Your task to perform on an android device: Do I have any events tomorrow? Image 0: 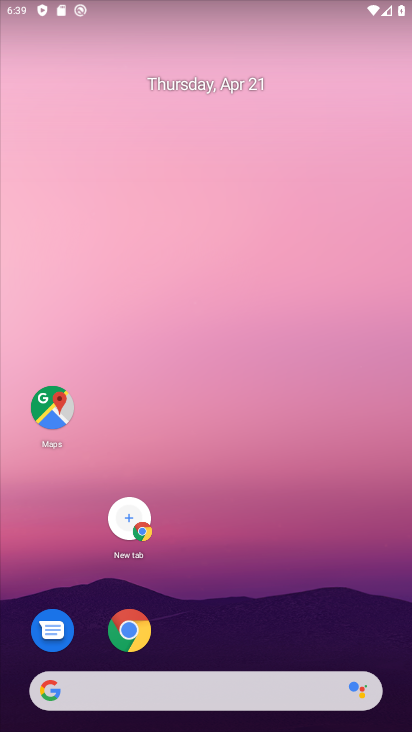
Step 0: drag from (319, 606) to (4, 4)
Your task to perform on an android device: Do I have any events tomorrow? Image 1: 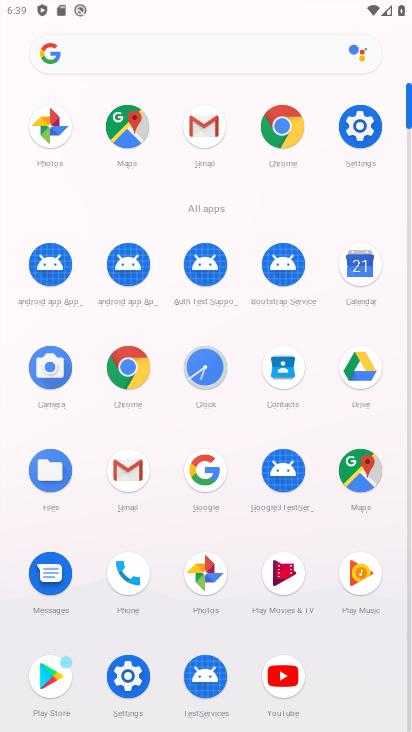
Step 1: click (364, 287)
Your task to perform on an android device: Do I have any events tomorrow? Image 2: 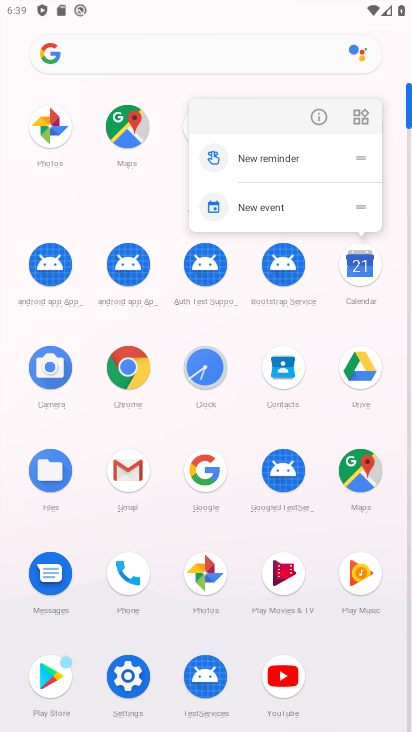
Step 2: click (357, 262)
Your task to perform on an android device: Do I have any events tomorrow? Image 3: 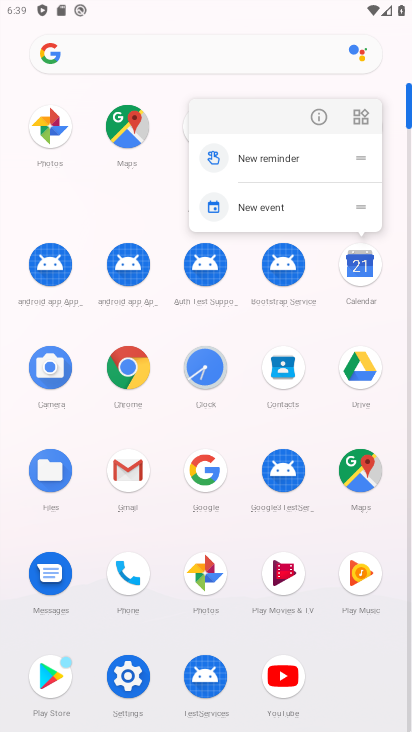
Step 3: click (370, 269)
Your task to perform on an android device: Do I have any events tomorrow? Image 4: 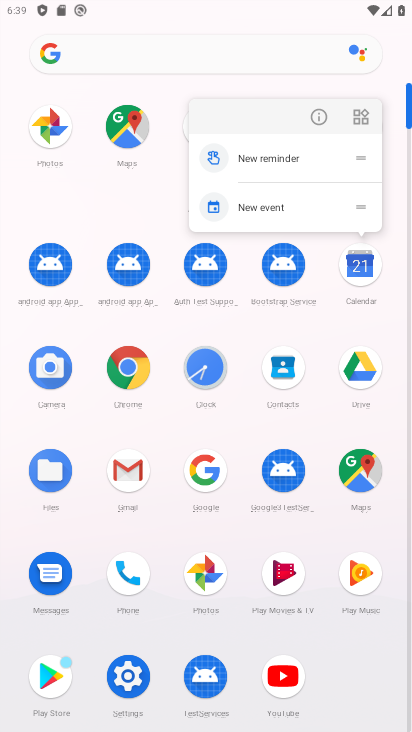
Step 4: click (348, 252)
Your task to perform on an android device: Do I have any events tomorrow? Image 5: 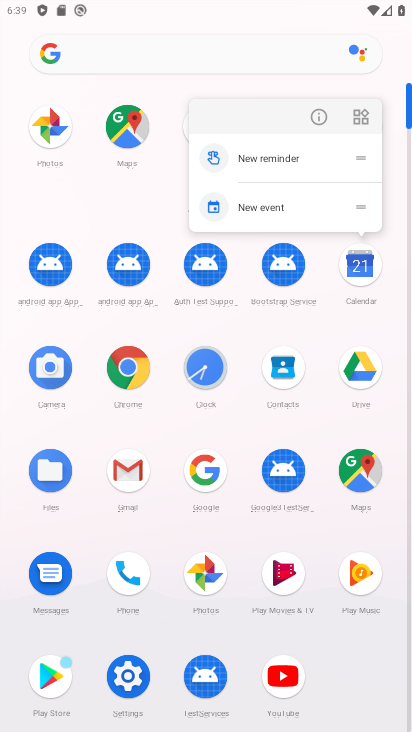
Step 5: click (373, 285)
Your task to perform on an android device: Do I have any events tomorrow? Image 6: 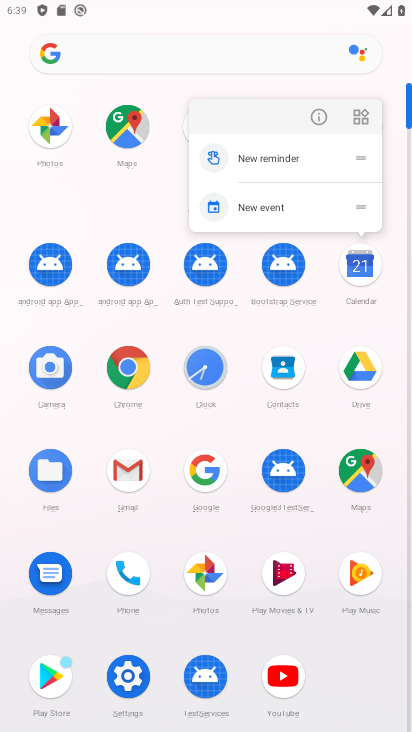
Step 6: click (352, 258)
Your task to perform on an android device: Do I have any events tomorrow? Image 7: 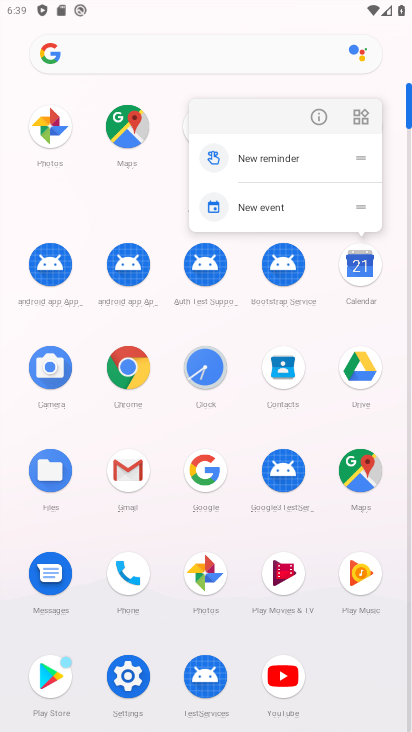
Step 7: click (354, 279)
Your task to perform on an android device: Do I have any events tomorrow? Image 8: 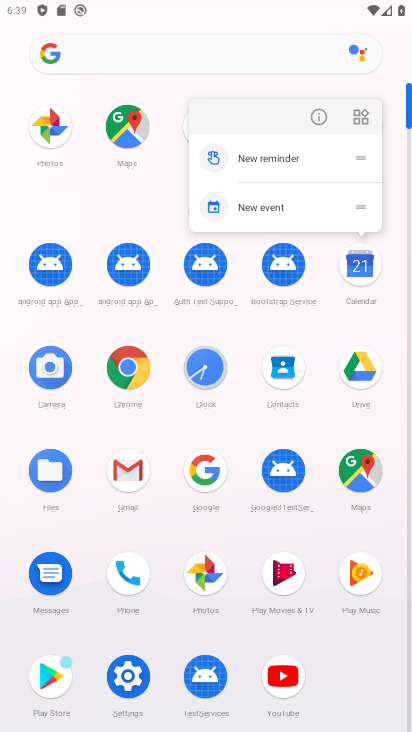
Step 8: click (355, 269)
Your task to perform on an android device: Do I have any events tomorrow? Image 9: 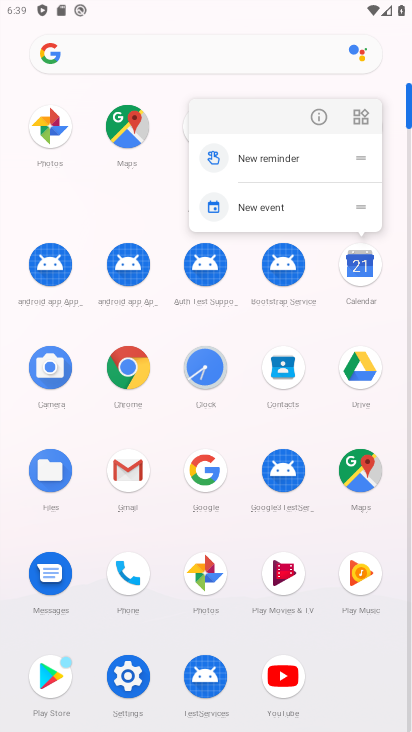
Step 9: click (355, 269)
Your task to perform on an android device: Do I have any events tomorrow? Image 10: 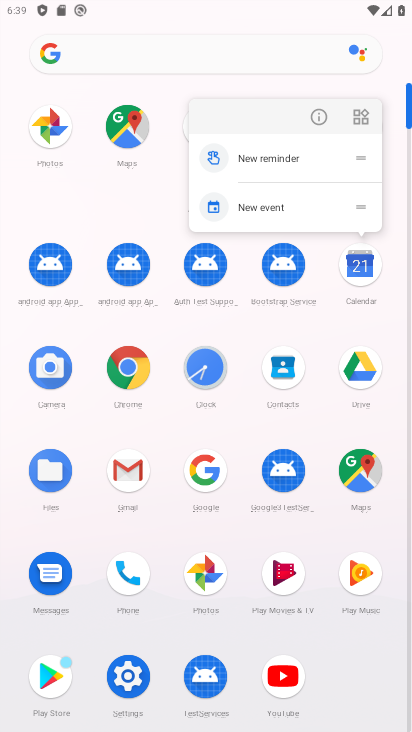
Step 10: click (355, 262)
Your task to perform on an android device: Do I have any events tomorrow? Image 11: 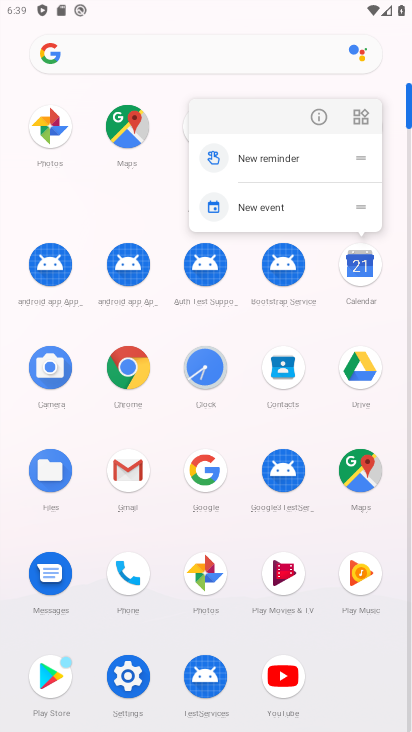
Step 11: click (365, 269)
Your task to perform on an android device: Do I have any events tomorrow? Image 12: 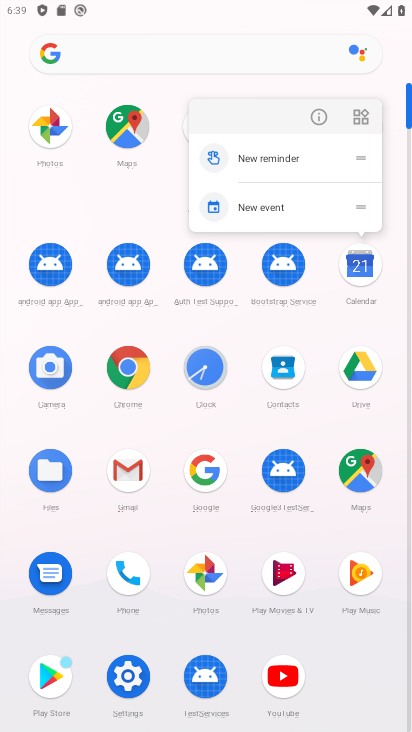
Step 12: click (365, 269)
Your task to perform on an android device: Do I have any events tomorrow? Image 13: 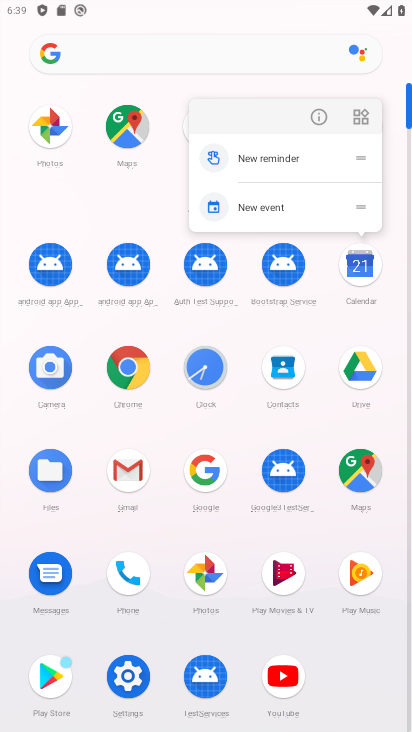
Step 13: click (361, 271)
Your task to perform on an android device: Do I have any events tomorrow? Image 14: 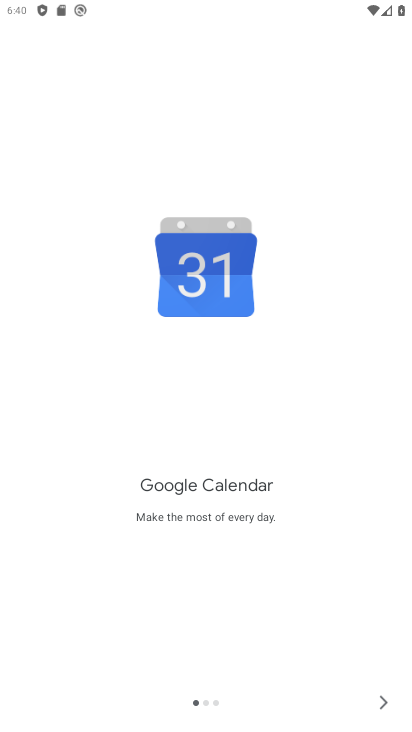
Step 14: click (382, 697)
Your task to perform on an android device: Do I have any events tomorrow? Image 15: 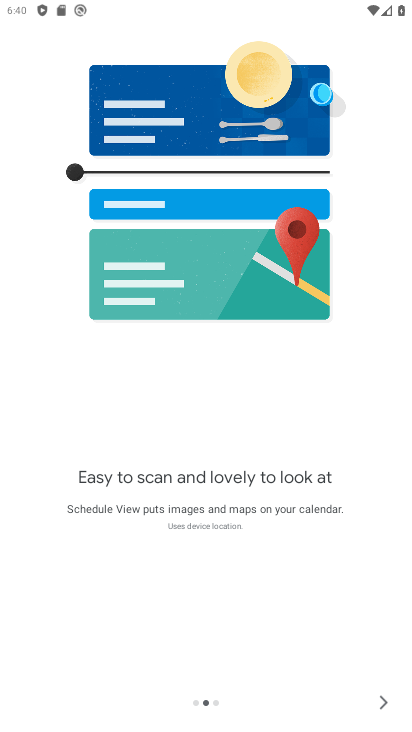
Step 15: click (385, 695)
Your task to perform on an android device: Do I have any events tomorrow? Image 16: 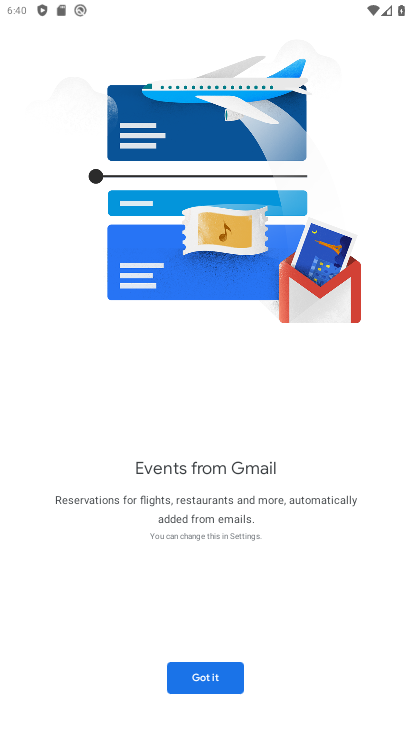
Step 16: click (382, 694)
Your task to perform on an android device: Do I have any events tomorrow? Image 17: 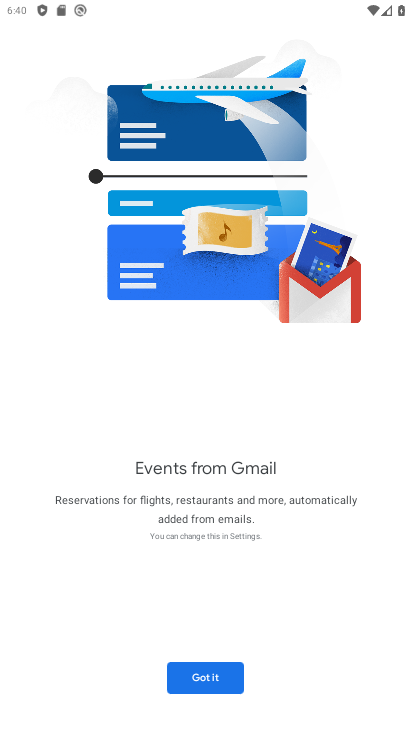
Step 17: click (228, 674)
Your task to perform on an android device: Do I have any events tomorrow? Image 18: 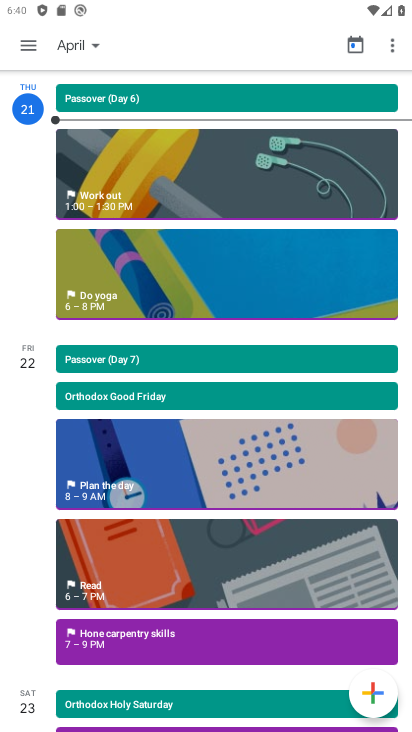
Step 18: click (74, 37)
Your task to perform on an android device: Do I have any events tomorrow? Image 19: 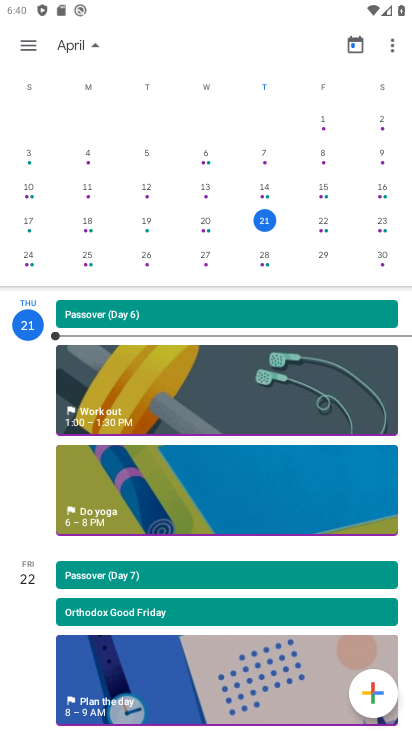
Step 19: click (327, 220)
Your task to perform on an android device: Do I have any events tomorrow? Image 20: 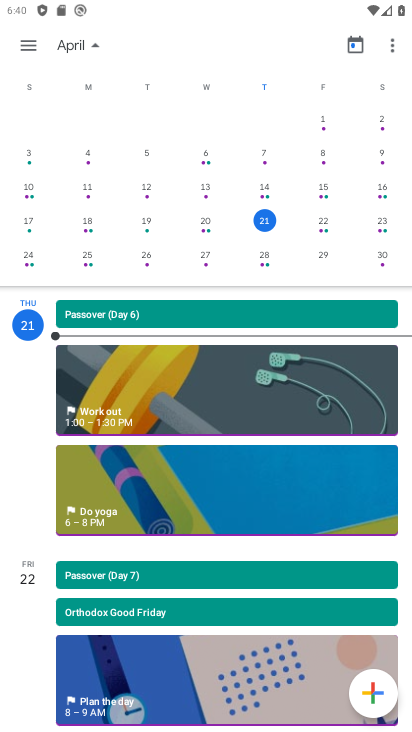
Step 20: click (324, 230)
Your task to perform on an android device: Do I have any events tomorrow? Image 21: 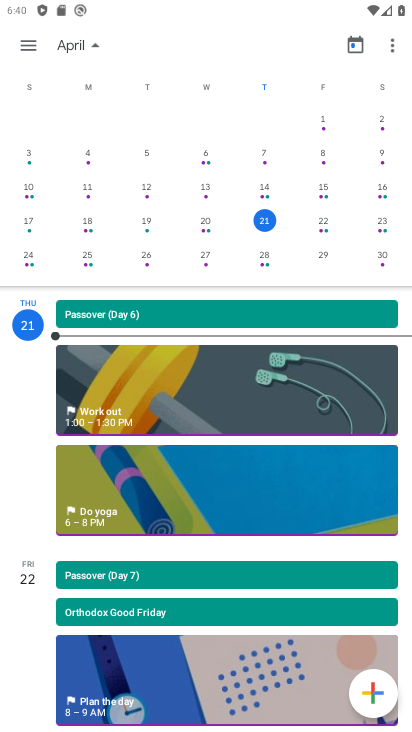
Step 21: click (324, 234)
Your task to perform on an android device: Do I have any events tomorrow? Image 22: 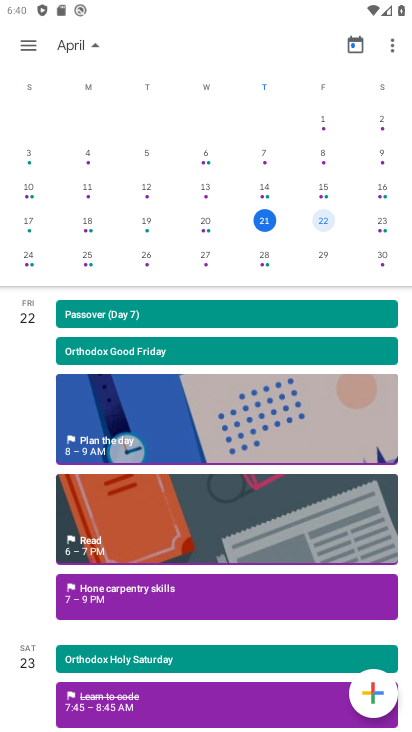
Step 22: task complete